Your task to perform on an android device: Open ESPN.com Image 0: 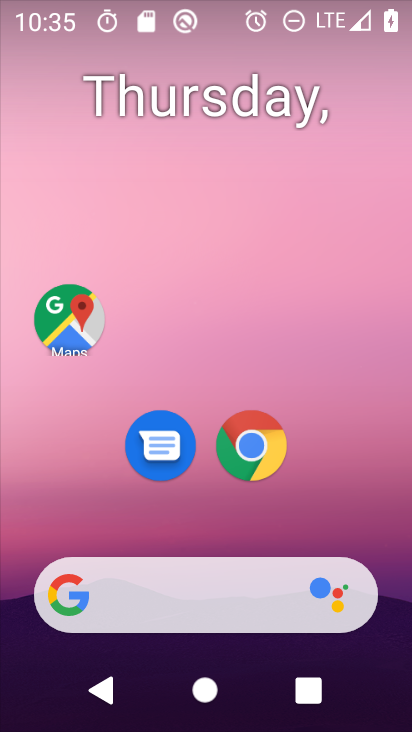
Step 0: drag from (195, 466) to (188, 35)
Your task to perform on an android device: Open ESPN.com Image 1: 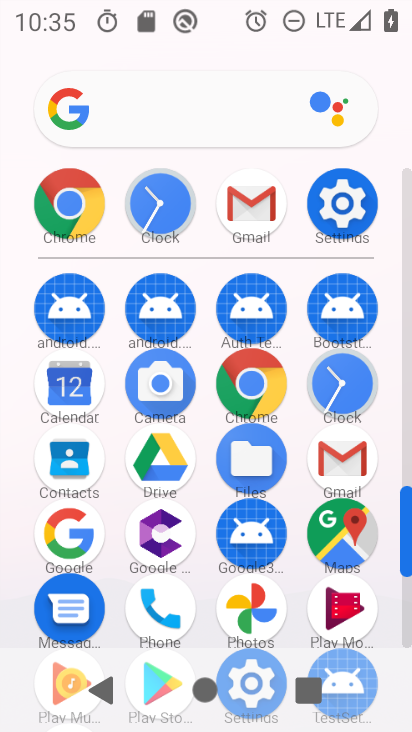
Step 1: click (169, 166)
Your task to perform on an android device: Open ESPN.com Image 2: 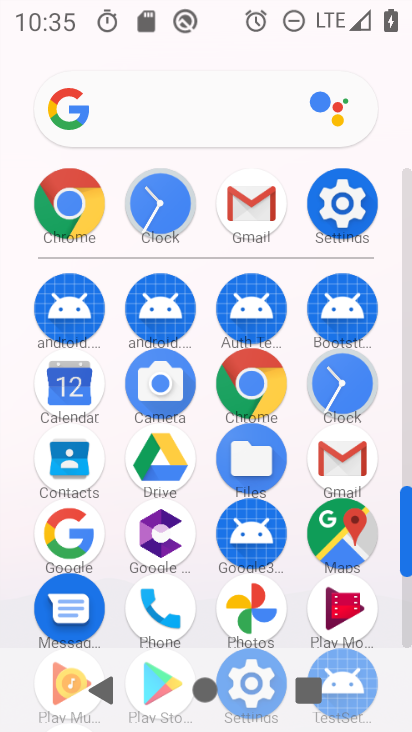
Step 2: click (121, 113)
Your task to perform on an android device: Open ESPN.com Image 3: 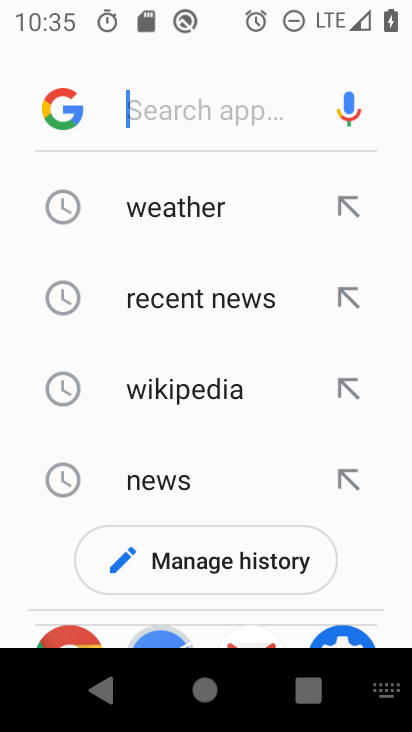
Step 3: type "espn.com"
Your task to perform on an android device: Open ESPN.com Image 4: 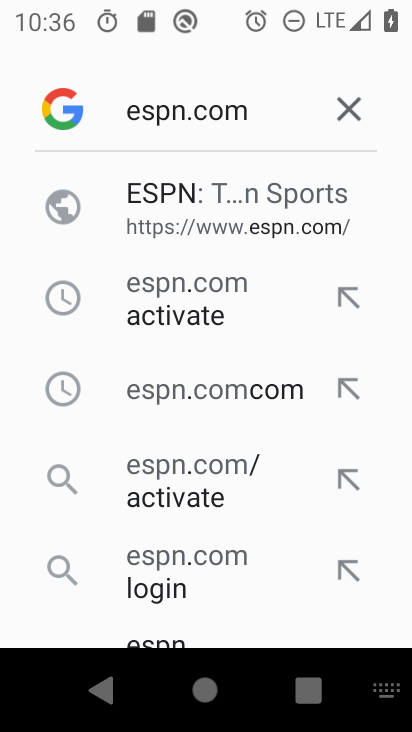
Step 4: click (225, 238)
Your task to perform on an android device: Open ESPN.com Image 5: 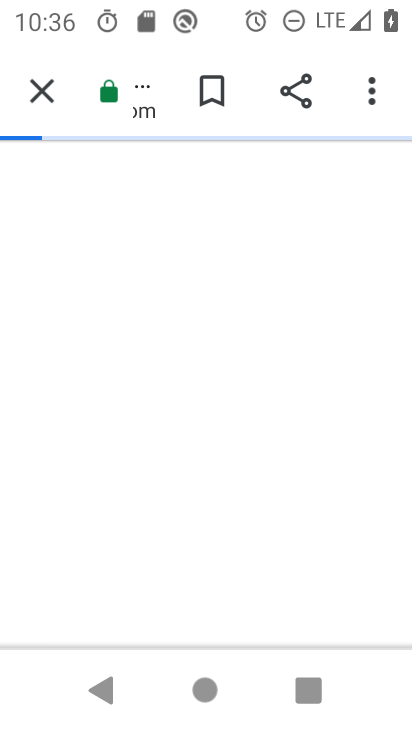
Step 5: task complete